Your task to perform on an android device: Show me recent news Image 0: 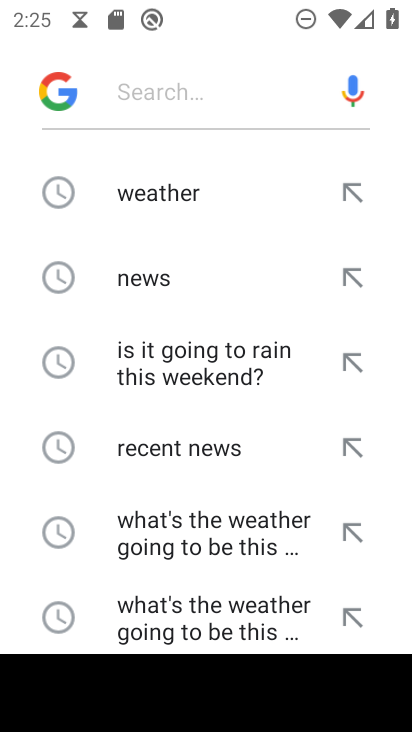
Step 0: press home button
Your task to perform on an android device: Show me recent news Image 1: 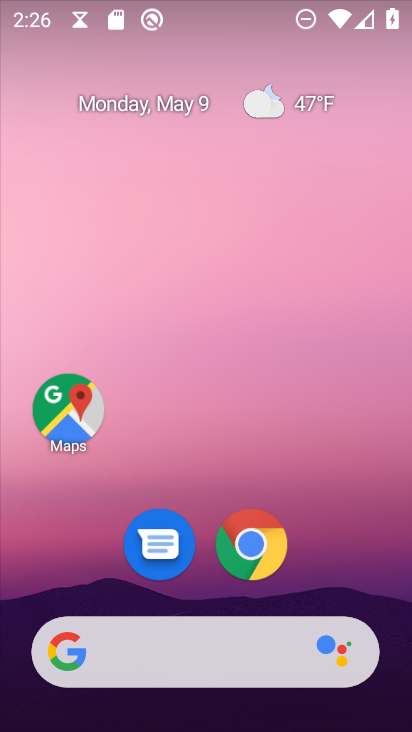
Step 1: click (243, 546)
Your task to perform on an android device: Show me recent news Image 2: 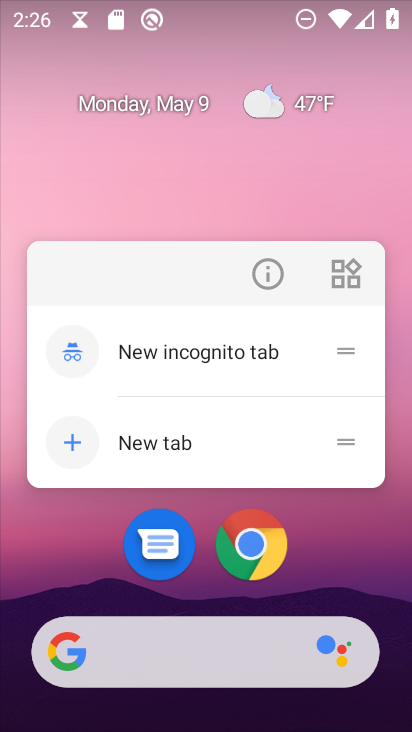
Step 2: click (243, 546)
Your task to perform on an android device: Show me recent news Image 3: 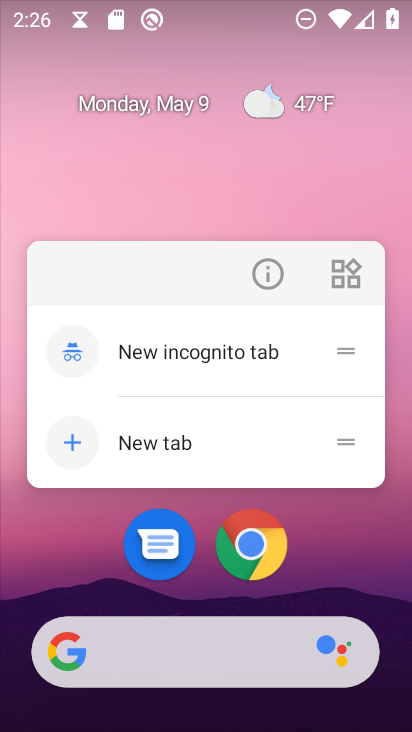
Step 3: click (243, 545)
Your task to perform on an android device: Show me recent news Image 4: 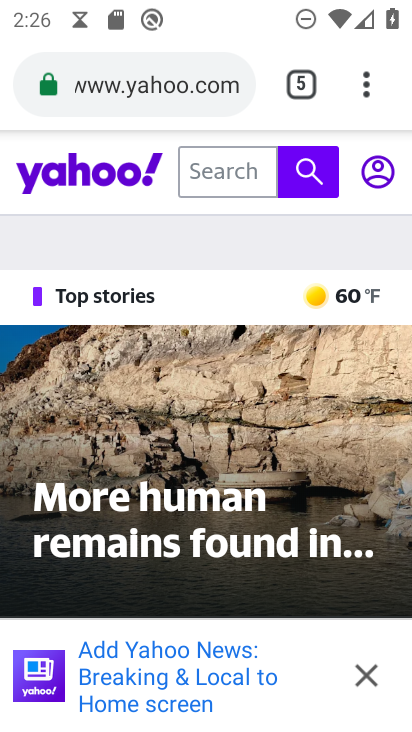
Step 4: drag from (365, 100) to (66, 164)
Your task to perform on an android device: Show me recent news Image 5: 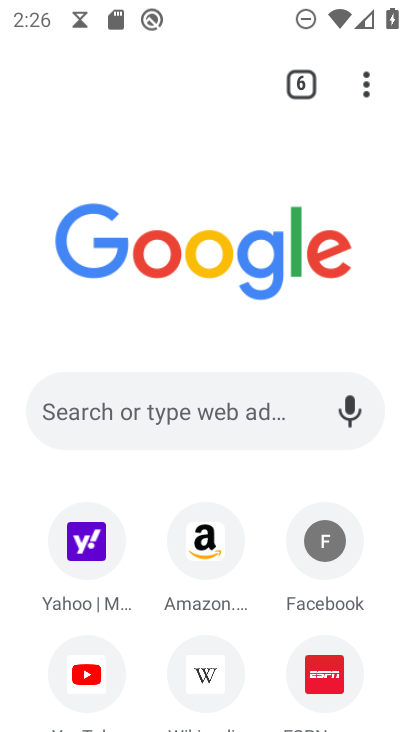
Step 5: click (405, 584)
Your task to perform on an android device: Show me recent news Image 6: 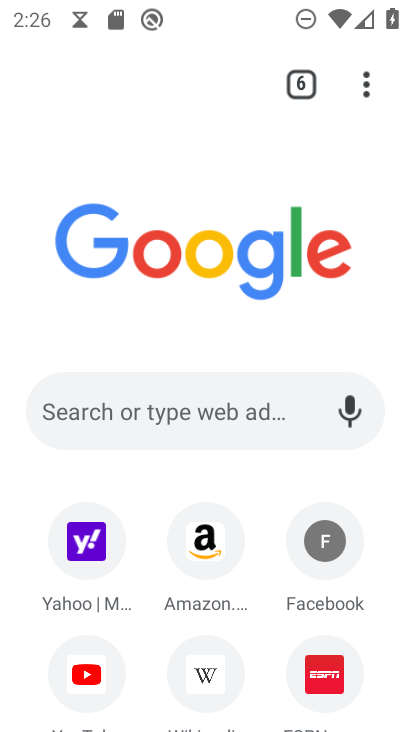
Step 6: task complete